Your task to perform on an android device: Show me productivity apps on the Play Store Image 0: 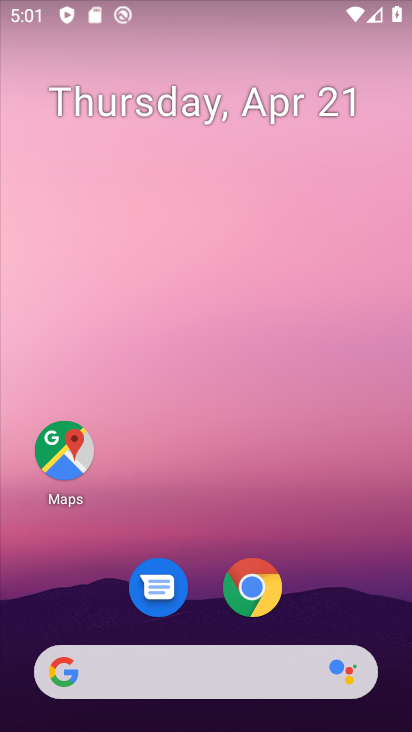
Step 0: drag from (165, 369) to (143, 156)
Your task to perform on an android device: Show me productivity apps on the Play Store Image 1: 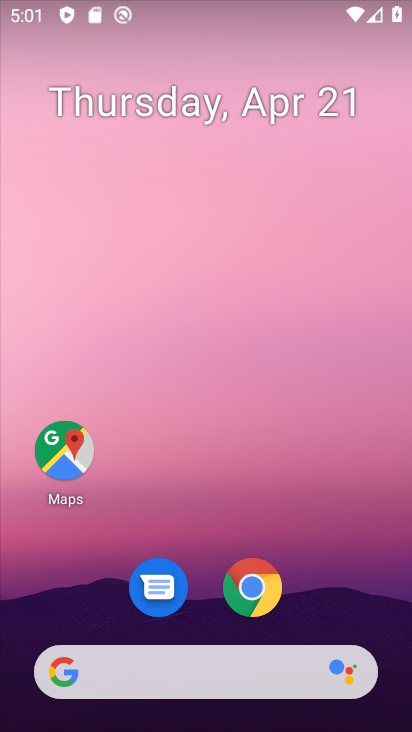
Step 1: drag from (213, 621) to (172, 90)
Your task to perform on an android device: Show me productivity apps on the Play Store Image 2: 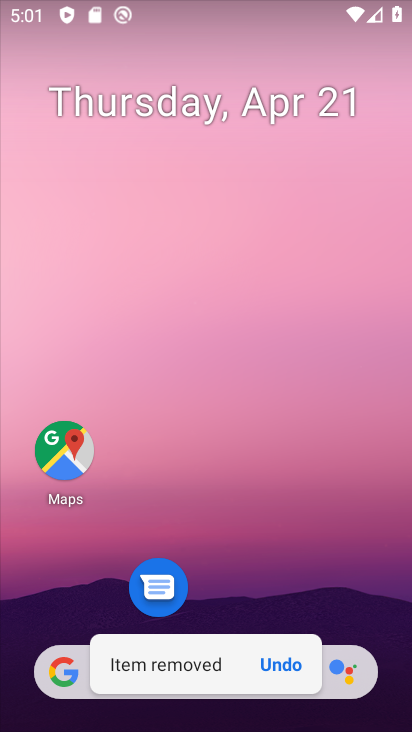
Step 2: click (277, 660)
Your task to perform on an android device: Show me productivity apps on the Play Store Image 3: 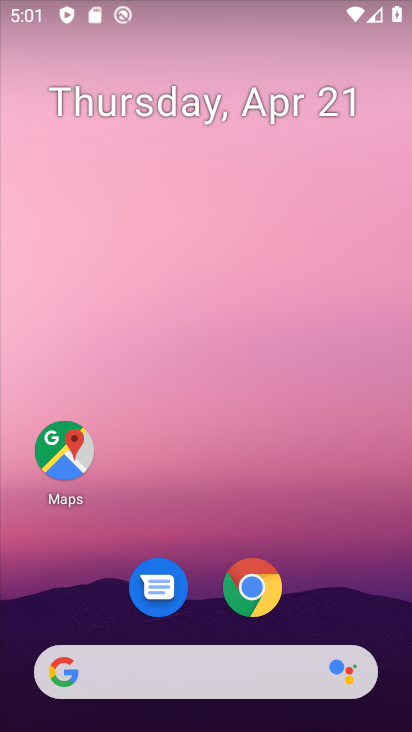
Step 3: drag from (317, 585) to (339, 47)
Your task to perform on an android device: Show me productivity apps on the Play Store Image 4: 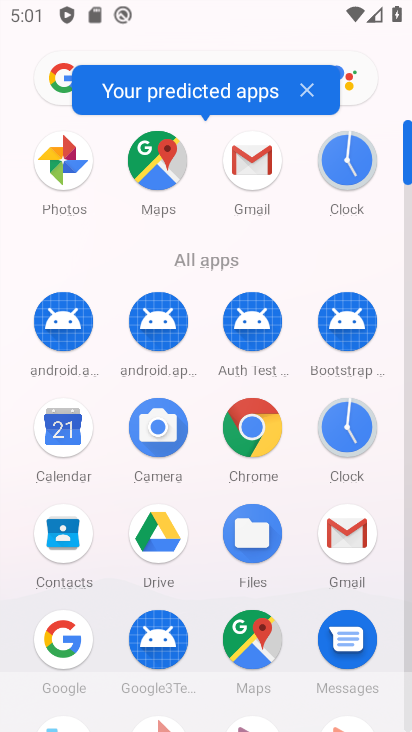
Step 4: drag from (205, 605) to (161, 239)
Your task to perform on an android device: Show me productivity apps on the Play Store Image 5: 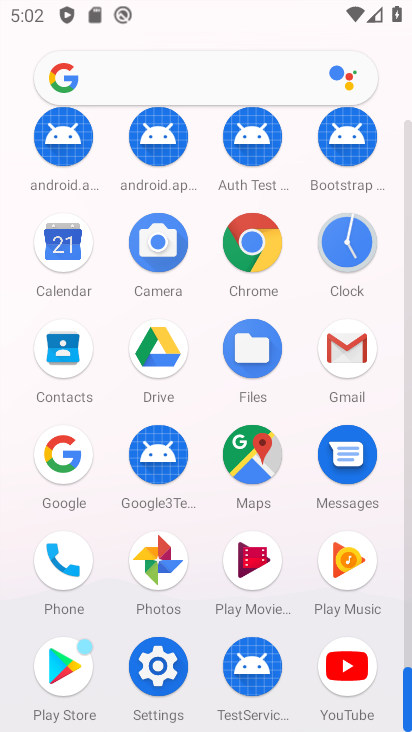
Step 5: click (55, 665)
Your task to perform on an android device: Show me productivity apps on the Play Store Image 6: 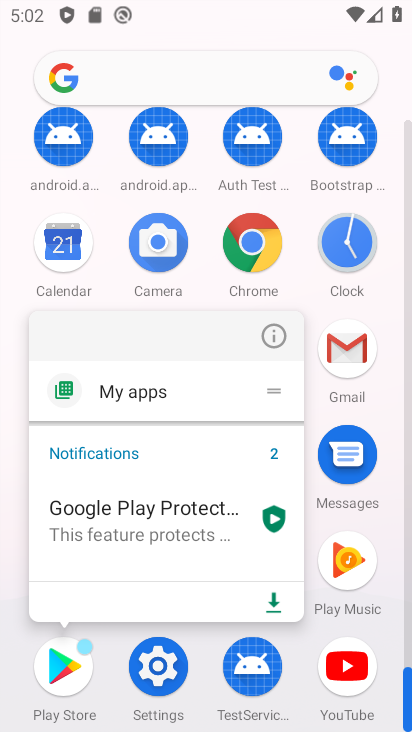
Step 6: click (56, 659)
Your task to perform on an android device: Show me productivity apps on the Play Store Image 7: 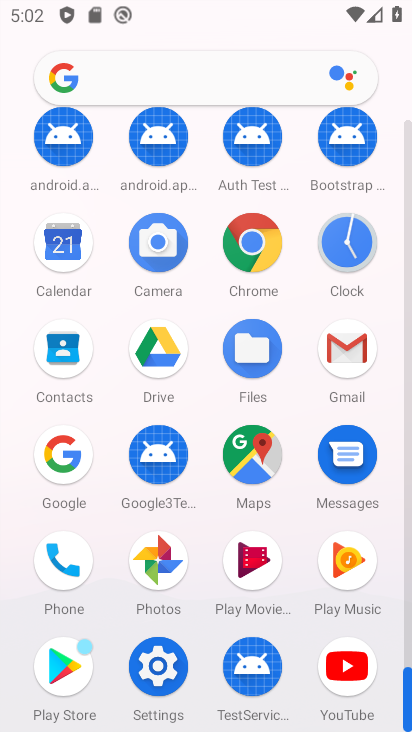
Step 7: click (67, 653)
Your task to perform on an android device: Show me productivity apps on the Play Store Image 8: 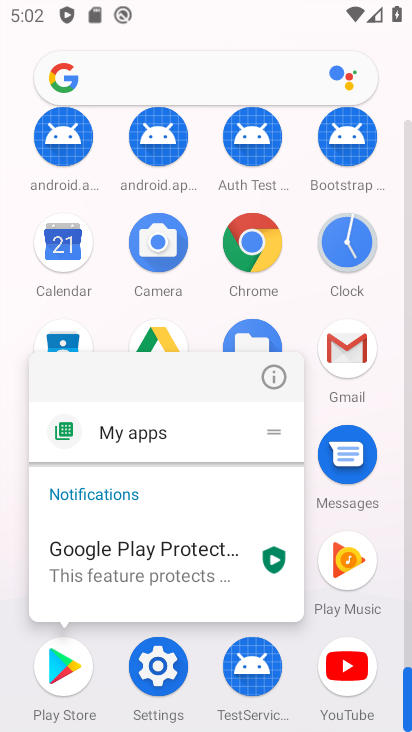
Step 8: click (3, 682)
Your task to perform on an android device: Show me productivity apps on the Play Store Image 9: 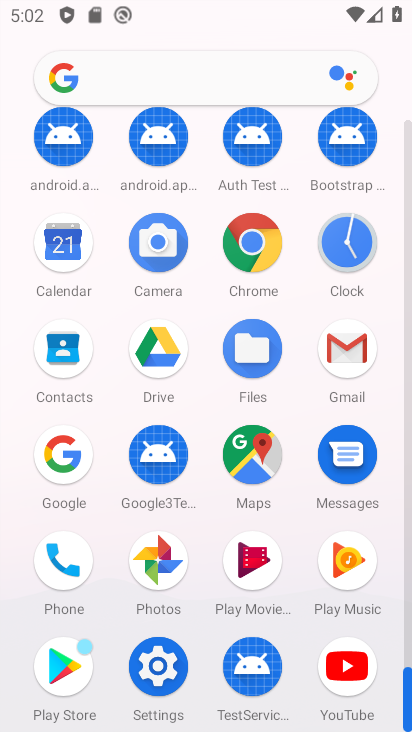
Step 9: click (60, 658)
Your task to perform on an android device: Show me productivity apps on the Play Store Image 10: 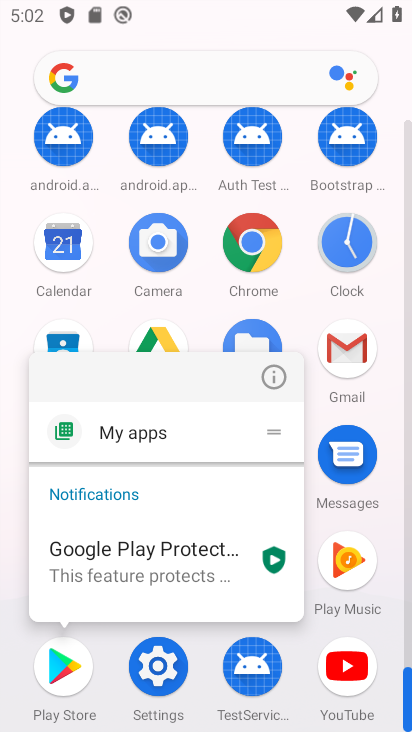
Step 10: click (27, 688)
Your task to perform on an android device: Show me productivity apps on the Play Store Image 11: 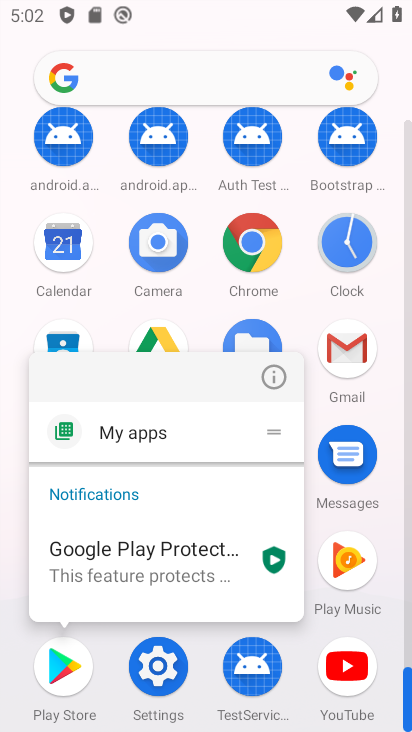
Step 11: click (61, 658)
Your task to perform on an android device: Show me productivity apps on the Play Store Image 12: 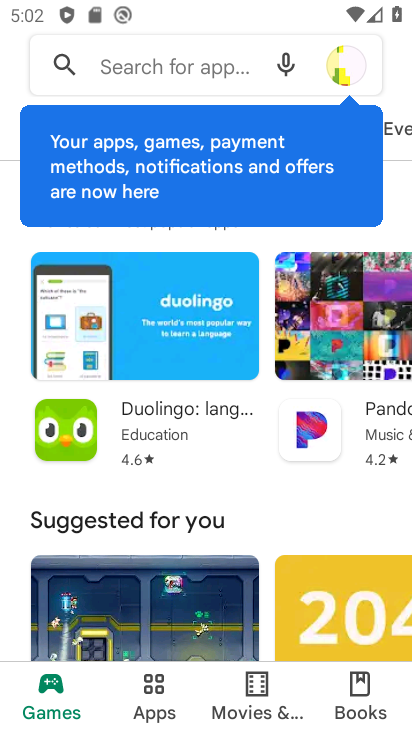
Step 12: click (346, 65)
Your task to perform on an android device: Show me productivity apps on the Play Store Image 13: 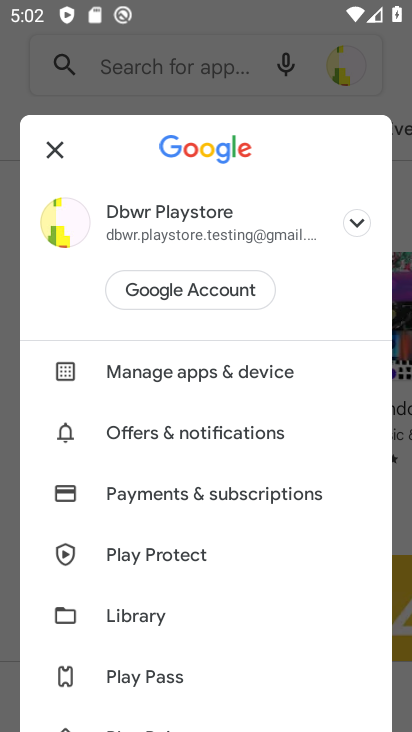
Step 13: click (48, 145)
Your task to perform on an android device: Show me productivity apps on the Play Store Image 14: 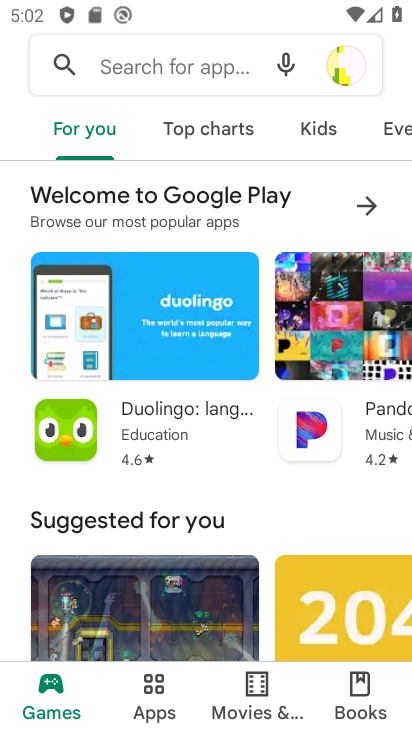
Step 14: click (152, 682)
Your task to perform on an android device: Show me productivity apps on the Play Store Image 15: 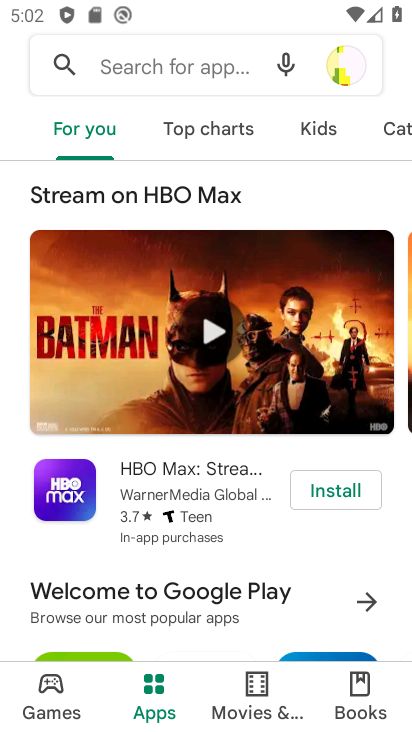
Step 15: click (402, 130)
Your task to perform on an android device: Show me productivity apps on the Play Store Image 16: 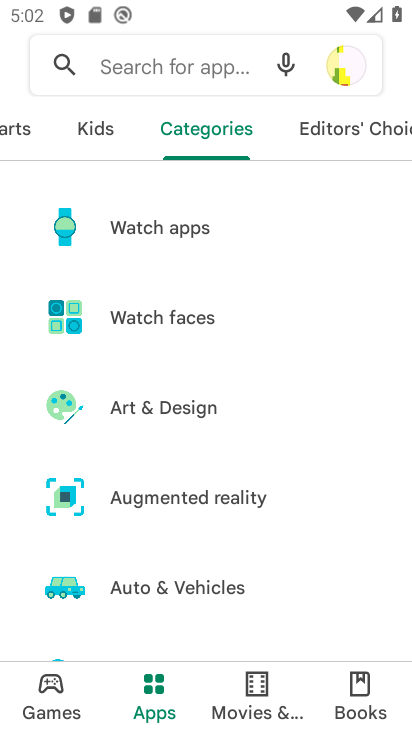
Step 16: drag from (171, 483) to (216, 200)
Your task to perform on an android device: Show me productivity apps on the Play Store Image 17: 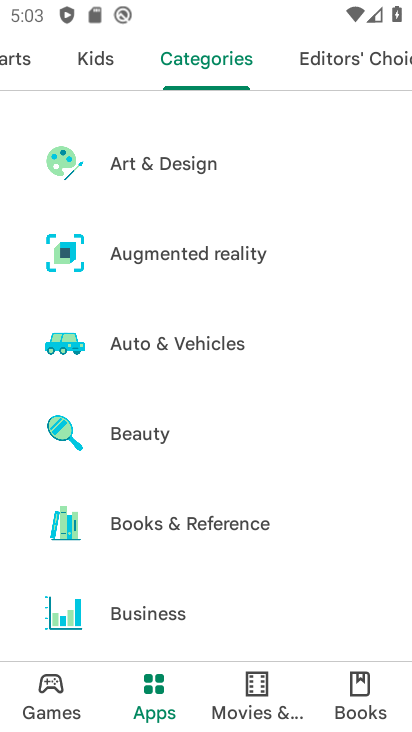
Step 17: drag from (152, 588) to (172, 81)
Your task to perform on an android device: Show me productivity apps on the Play Store Image 18: 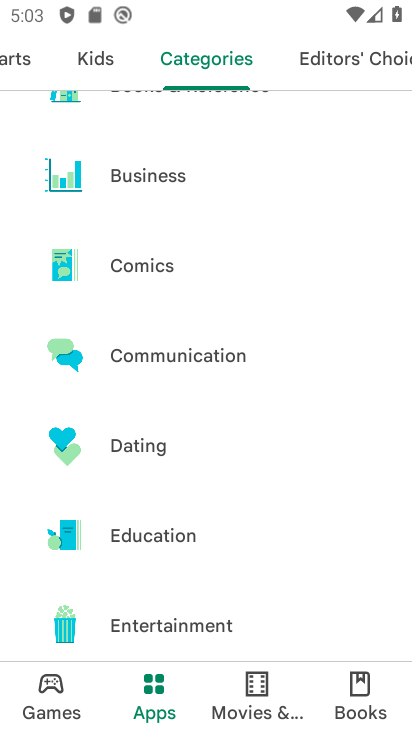
Step 18: drag from (146, 582) to (167, 122)
Your task to perform on an android device: Show me productivity apps on the Play Store Image 19: 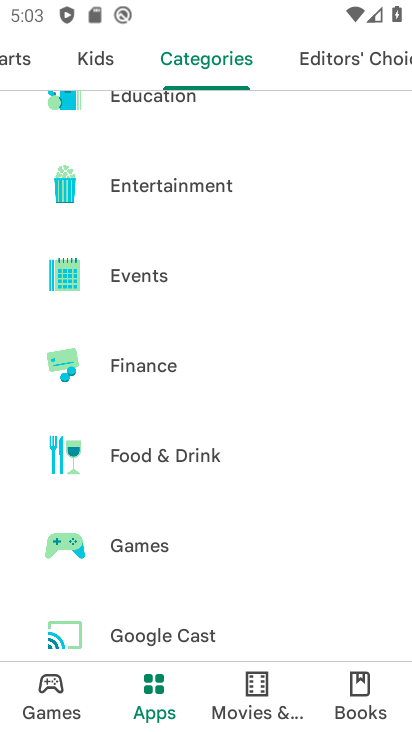
Step 19: drag from (171, 600) to (156, 91)
Your task to perform on an android device: Show me productivity apps on the Play Store Image 20: 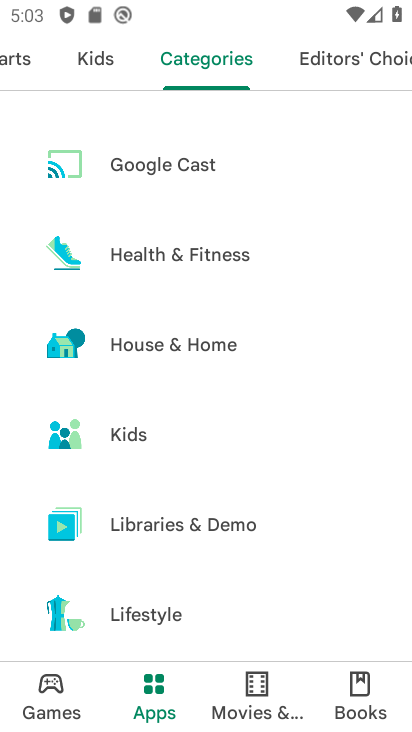
Step 20: drag from (132, 559) to (173, 69)
Your task to perform on an android device: Show me productivity apps on the Play Store Image 21: 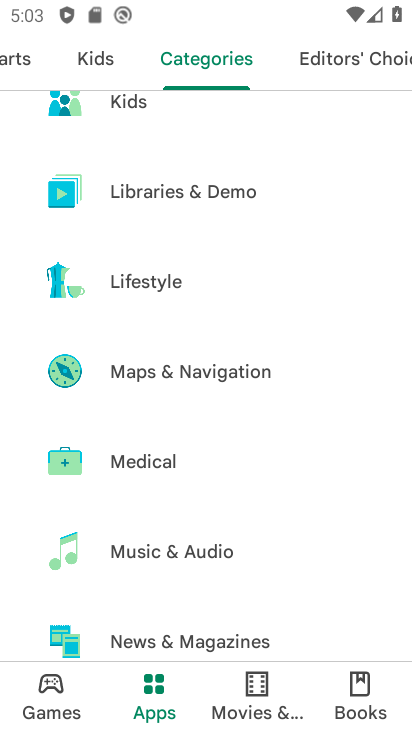
Step 21: drag from (145, 624) to (189, 82)
Your task to perform on an android device: Show me productivity apps on the Play Store Image 22: 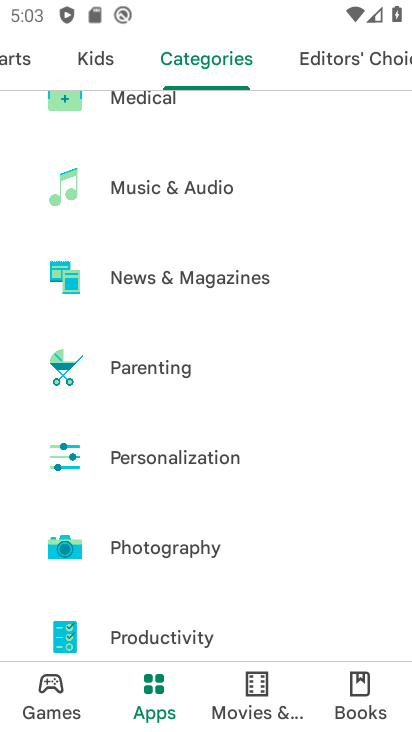
Step 22: click (163, 629)
Your task to perform on an android device: Show me productivity apps on the Play Store Image 23: 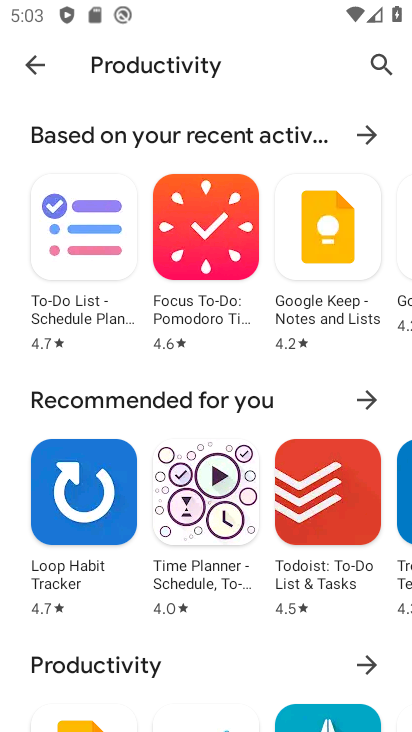
Step 23: task complete